Your task to perform on an android device: turn off priority inbox in the gmail app Image 0: 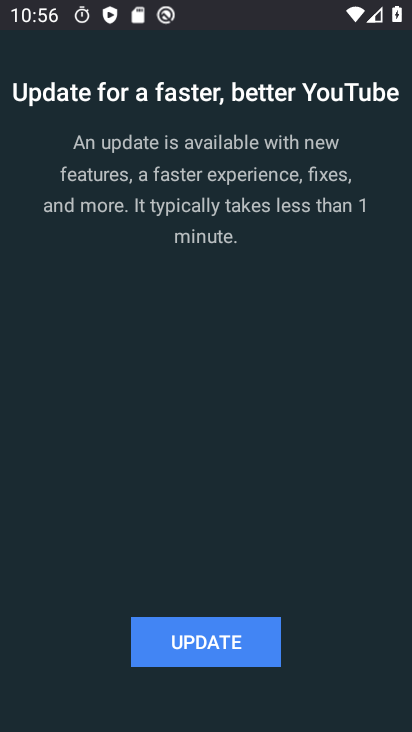
Step 0: press back button
Your task to perform on an android device: turn off priority inbox in the gmail app Image 1: 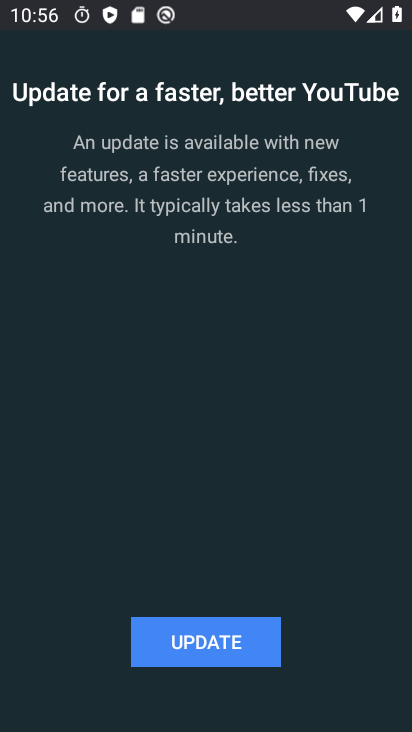
Step 1: press back button
Your task to perform on an android device: turn off priority inbox in the gmail app Image 2: 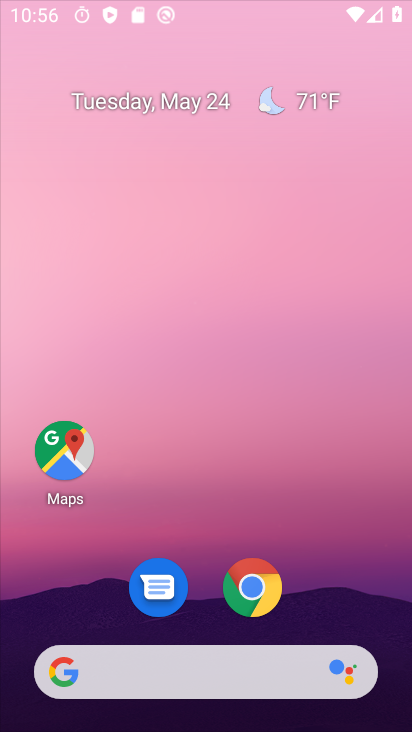
Step 2: press back button
Your task to perform on an android device: turn off priority inbox in the gmail app Image 3: 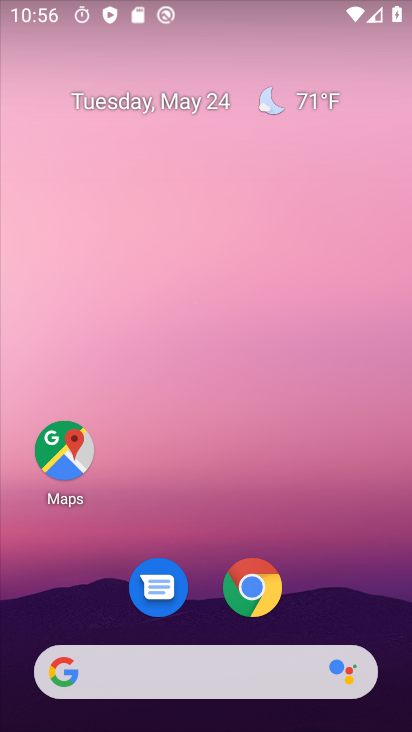
Step 3: drag from (322, 549) to (176, 16)
Your task to perform on an android device: turn off priority inbox in the gmail app Image 4: 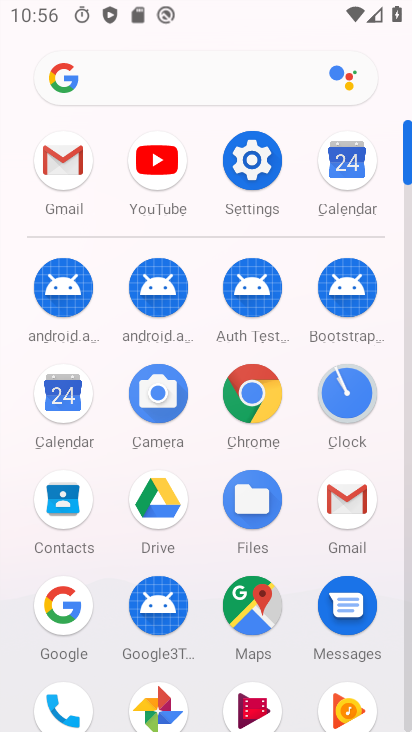
Step 4: click (343, 507)
Your task to perform on an android device: turn off priority inbox in the gmail app Image 5: 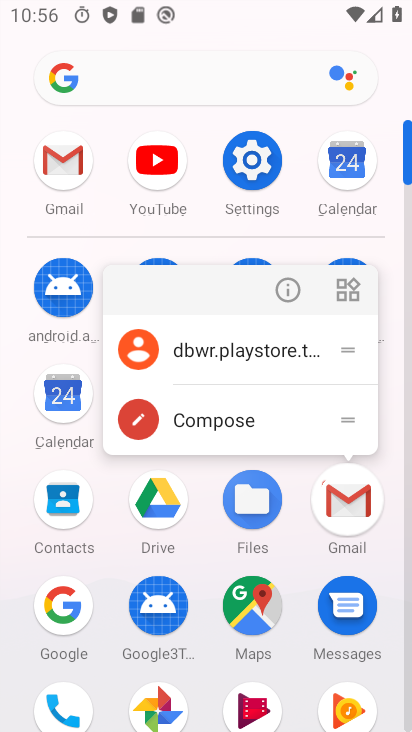
Step 5: click (353, 502)
Your task to perform on an android device: turn off priority inbox in the gmail app Image 6: 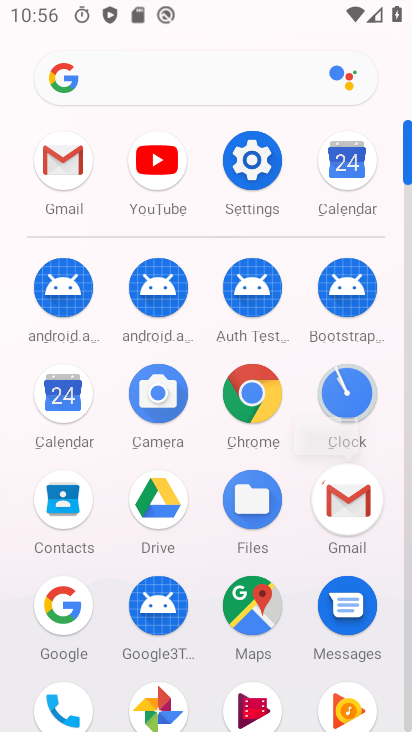
Step 6: click (353, 499)
Your task to perform on an android device: turn off priority inbox in the gmail app Image 7: 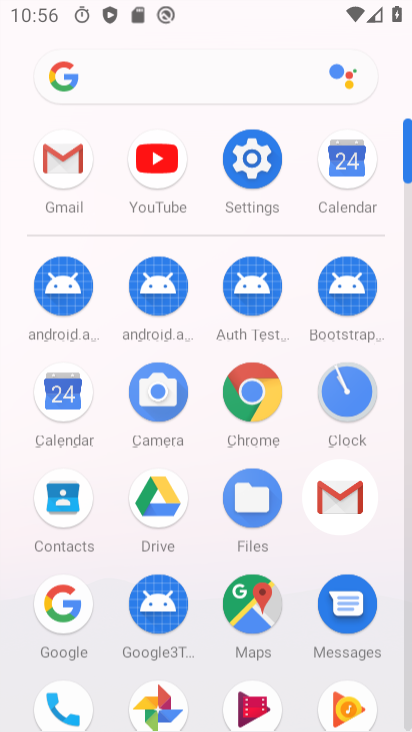
Step 7: click (353, 499)
Your task to perform on an android device: turn off priority inbox in the gmail app Image 8: 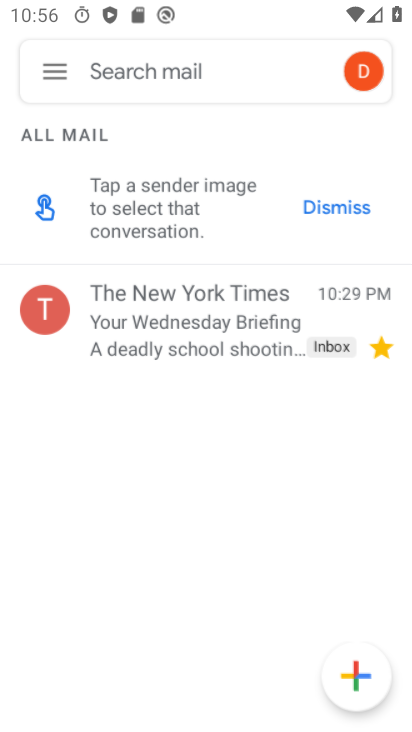
Step 8: click (355, 496)
Your task to perform on an android device: turn off priority inbox in the gmail app Image 9: 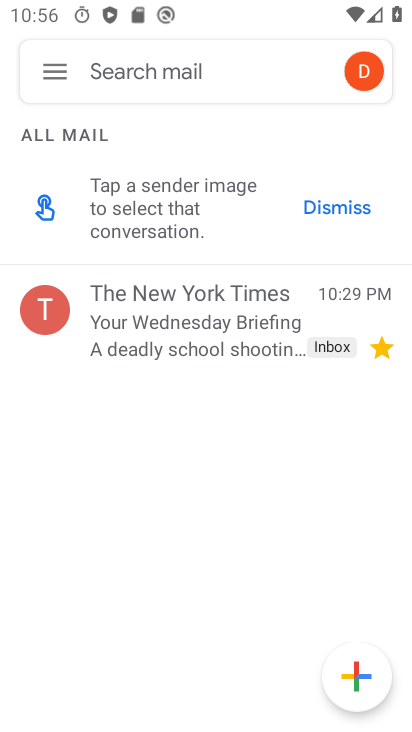
Step 9: click (355, 496)
Your task to perform on an android device: turn off priority inbox in the gmail app Image 10: 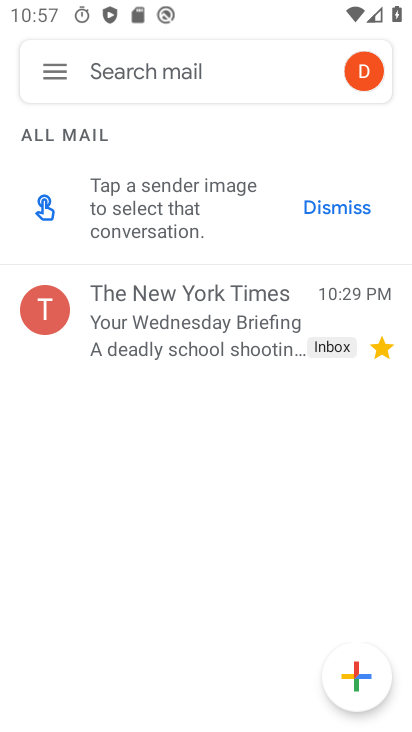
Step 10: click (53, 69)
Your task to perform on an android device: turn off priority inbox in the gmail app Image 11: 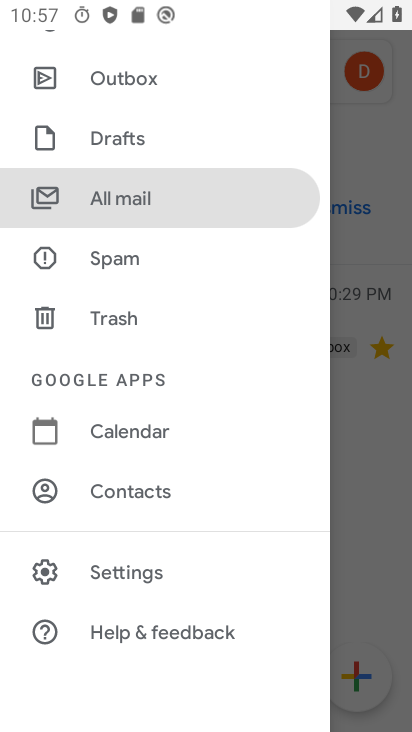
Step 11: click (115, 560)
Your task to perform on an android device: turn off priority inbox in the gmail app Image 12: 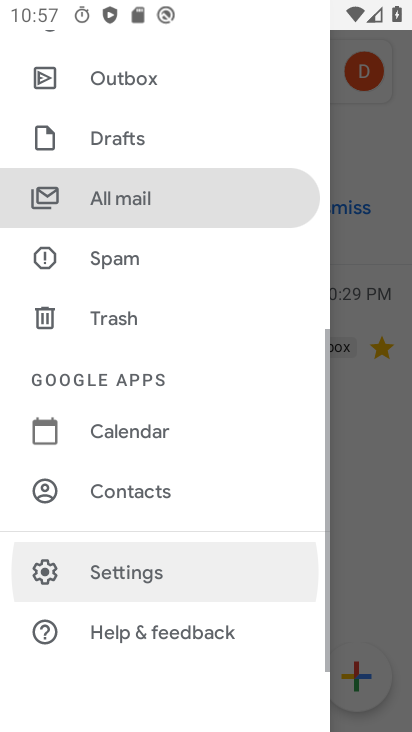
Step 12: click (123, 571)
Your task to perform on an android device: turn off priority inbox in the gmail app Image 13: 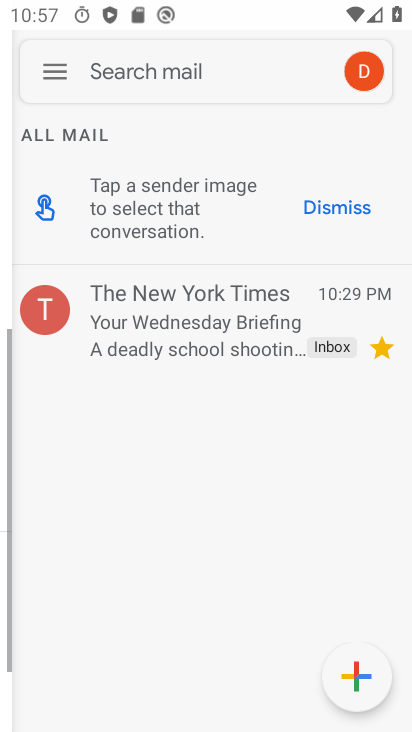
Step 13: click (127, 571)
Your task to perform on an android device: turn off priority inbox in the gmail app Image 14: 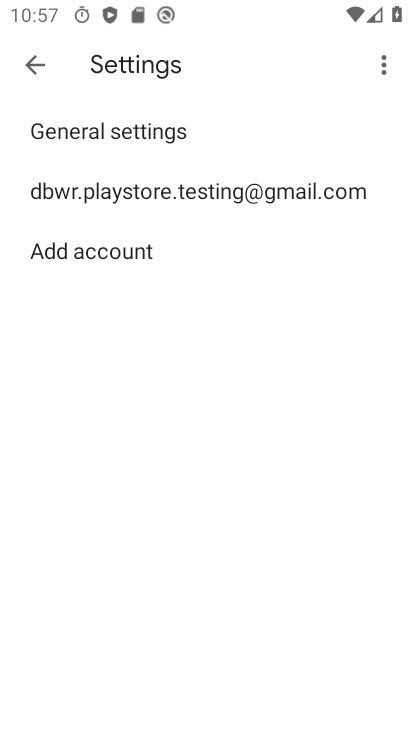
Step 14: click (120, 194)
Your task to perform on an android device: turn off priority inbox in the gmail app Image 15: 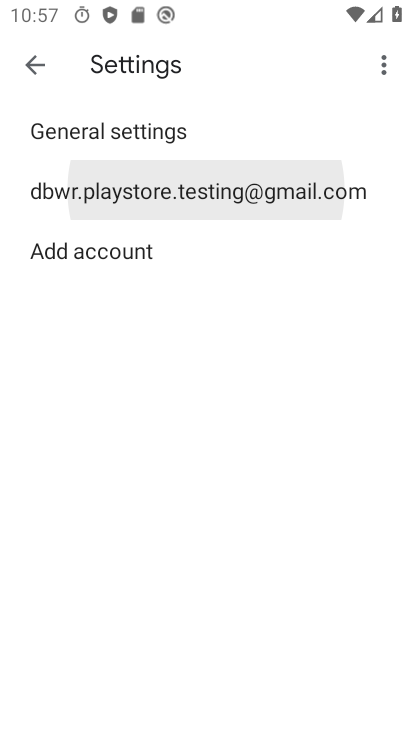
Step 15: click (120, 194)
Your task to perform on an android device: turn off priority inbox in the gmail app Image 16: 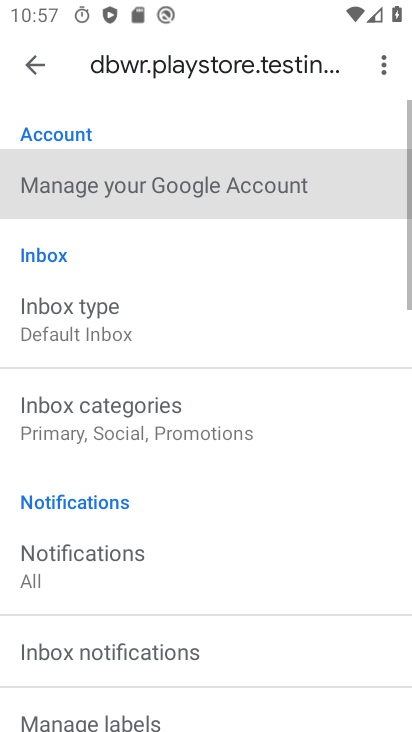
Step 16: click (120, 194)
Your task to perform on an android device: turn off priority inbox in the gmail app Image 17: 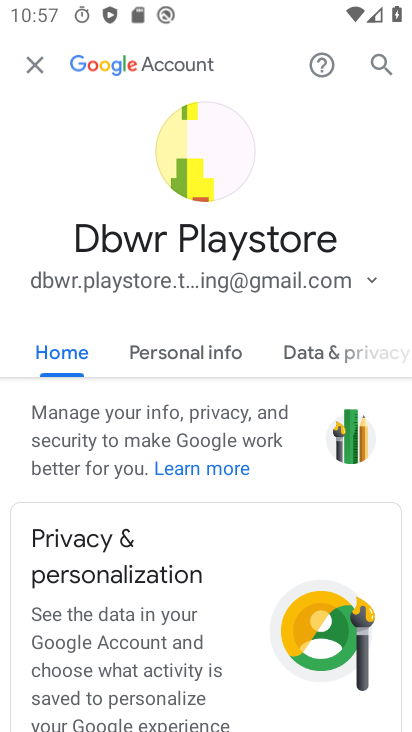
Step 17: click (34, 68)
Your task to perform on an android device: turn off priority inbox in the gmail app Image 18: 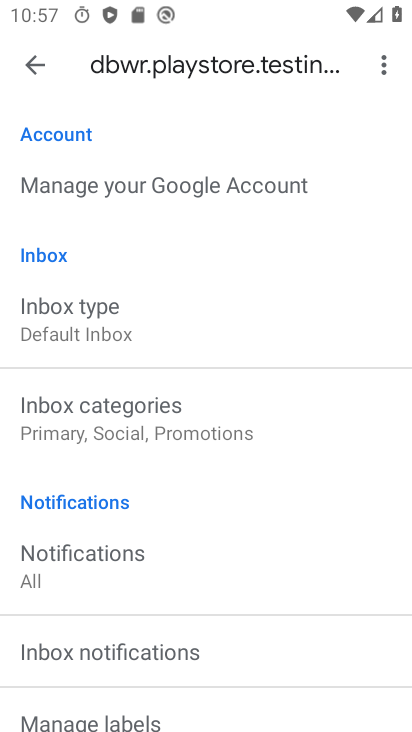
Step 18: click (73, 317)
Your task to perform on an android device: turn off priority inbox in the gmail app Image 19: 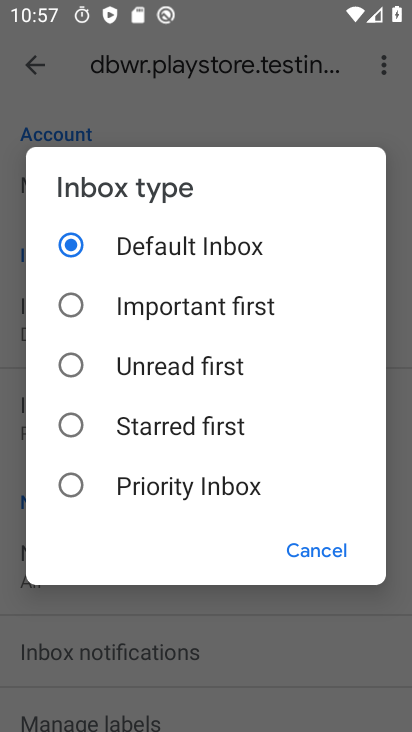
Step 19: click (319, 551)
Your task to perform on an android device: turn off priority inbox in the gmail app Image 20: 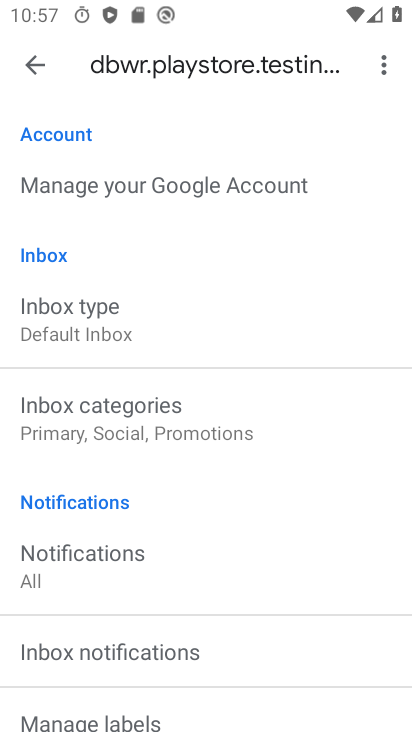
Step 20: task complete